Your task to perform on an android device: Open sound settings Image 0: 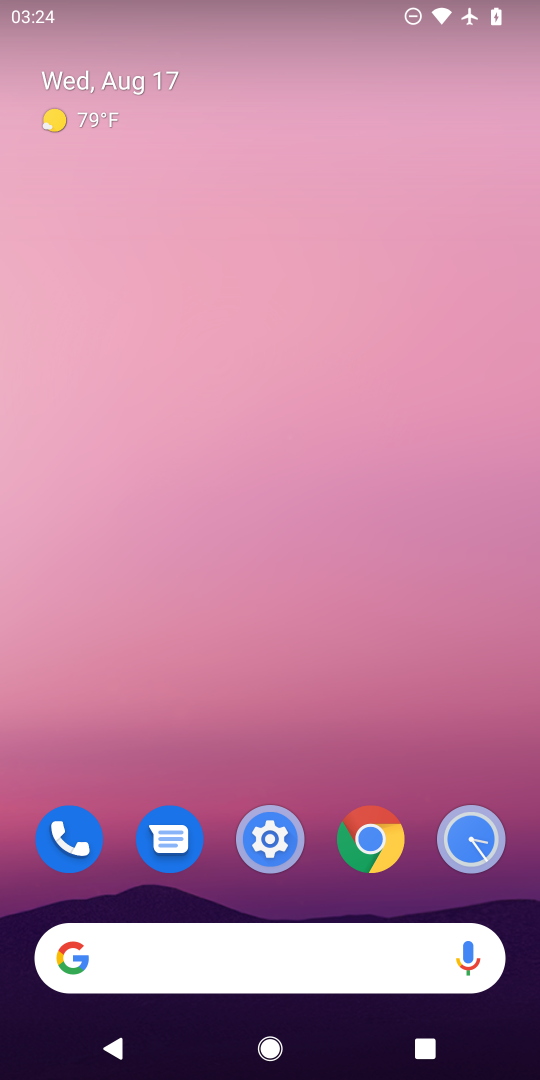
Step 0: drag from (285, 795) to (211, 88)
Your task to perform on an android device: Open sound settings Image 1: 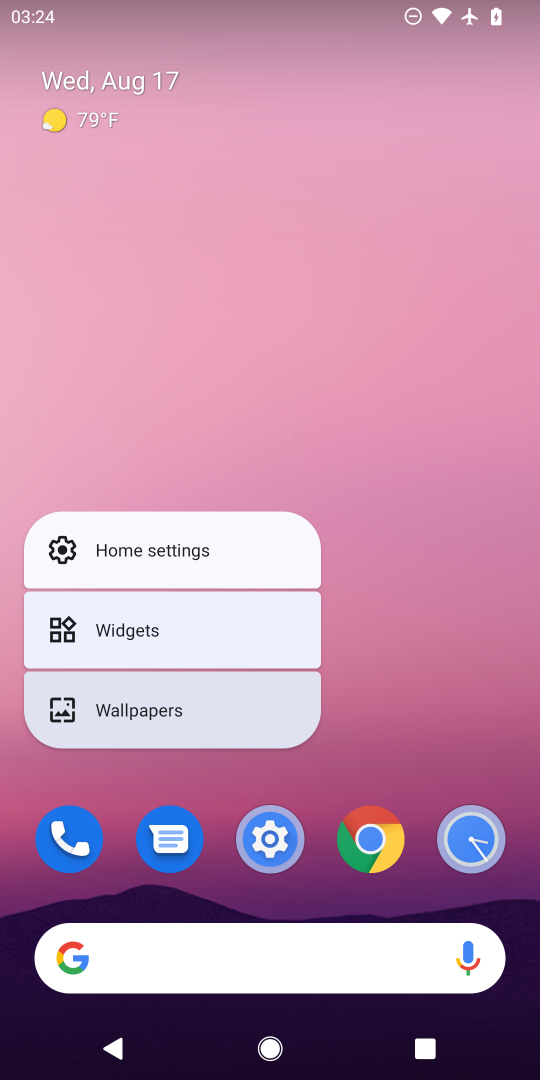
Step 1: click (349, 596)
Your task to perform on an android device: Open sound settings Image 2: 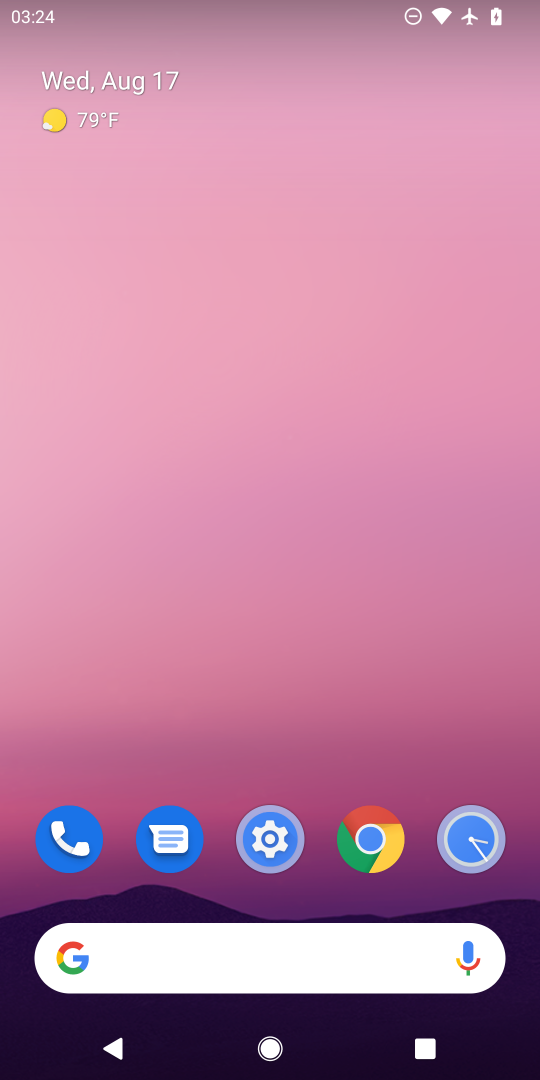
Step 2: drag from (280, 890) to (375, 71)
Your task to perform on an android device: Open sound settings Image 3: 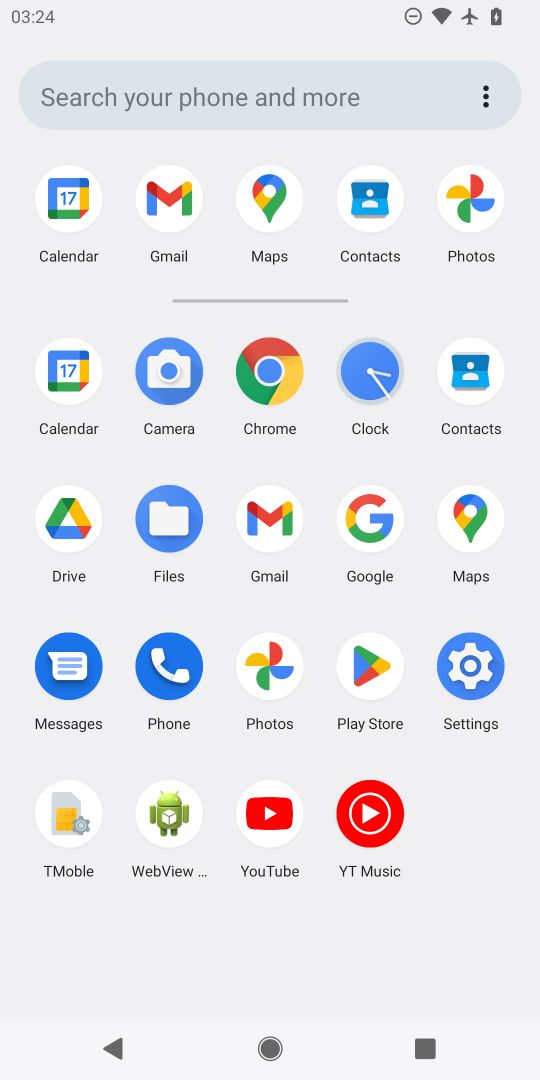
Step 3: click (483, 658)
Your task to perform on an android device: Open sound settings Image 4: 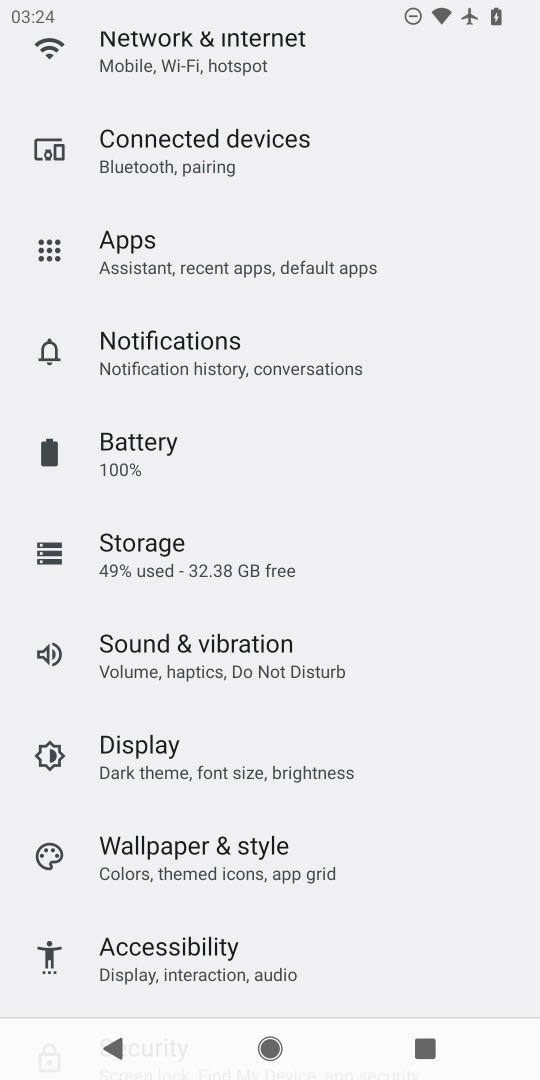
Step 4: drag from (156, 179) to (68, 661)
Your task to perform on an android device: Open sound settings Image 5: 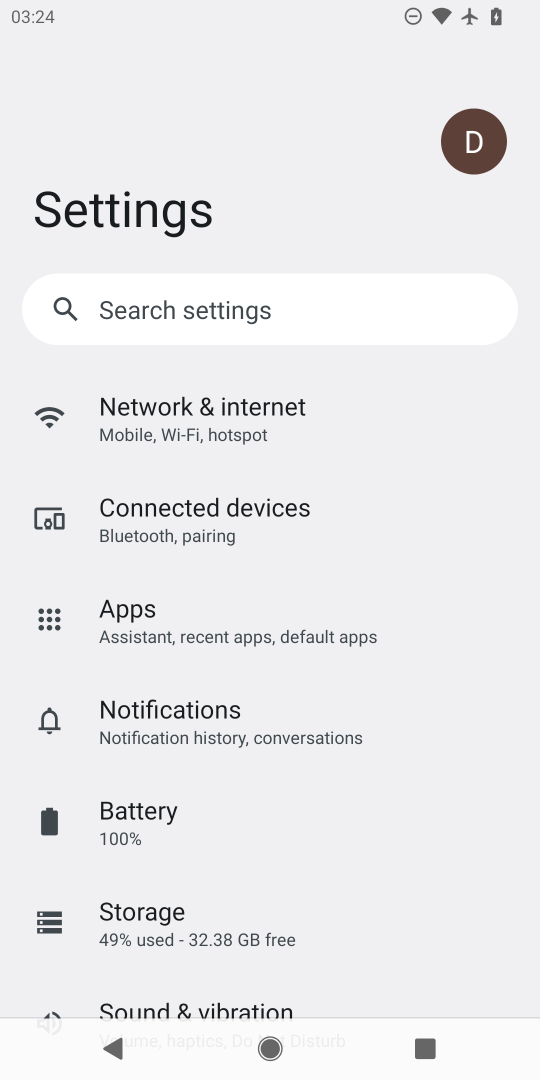
Step 5: drag from (150, 835) to (159, 476)
Your task to perform on an android device: Open sound settings Image 6: 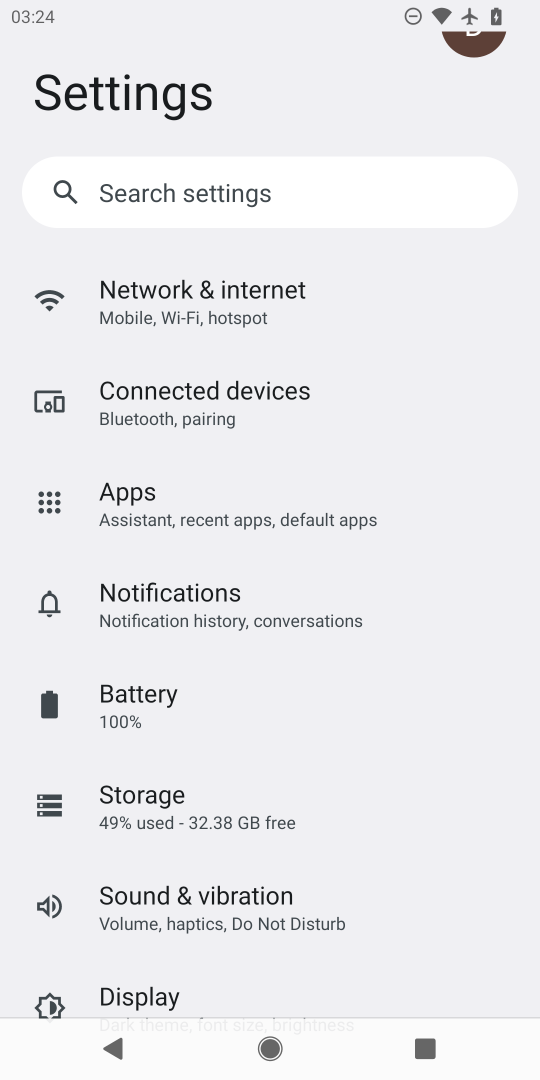
Step 6: click (179, 908)
Your task to perform on an android device: Open sound settings Image 7: 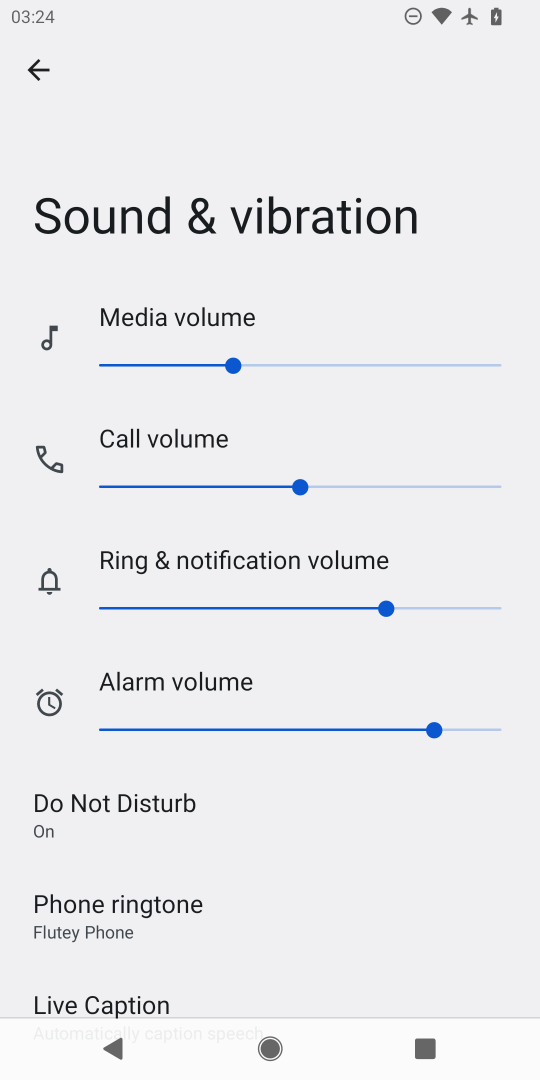
Step 7: task complete